Your task to perform on an android device: turn off wifi Image 0: 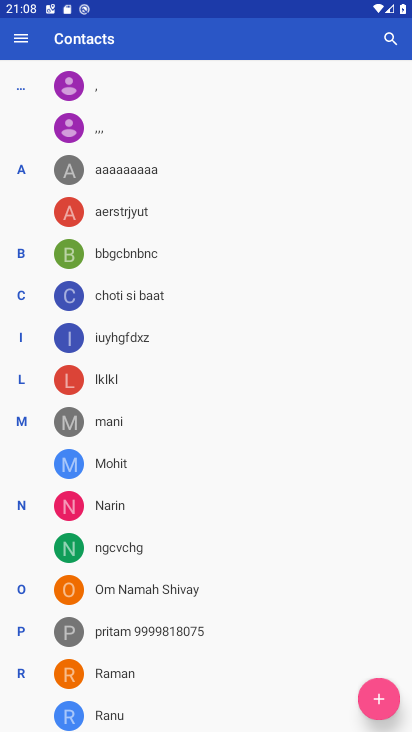
Step 0: press home button
Your task to perform on an android device: turn off wifi Image 1: 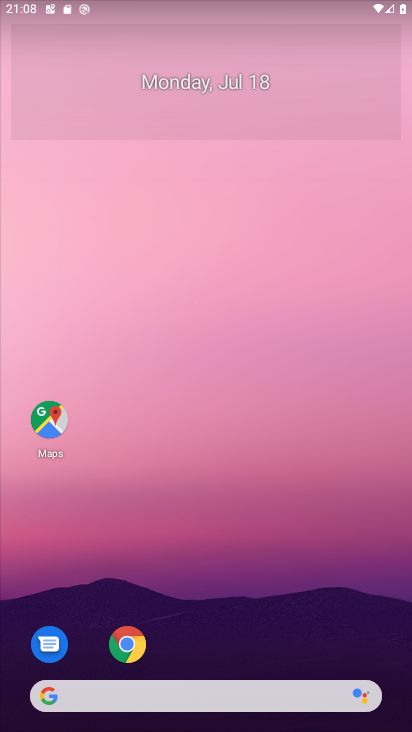
Step 1: drag from (254, 622) to (193, 33)
Your task to perform on an android device: turn off wifi Image 2: 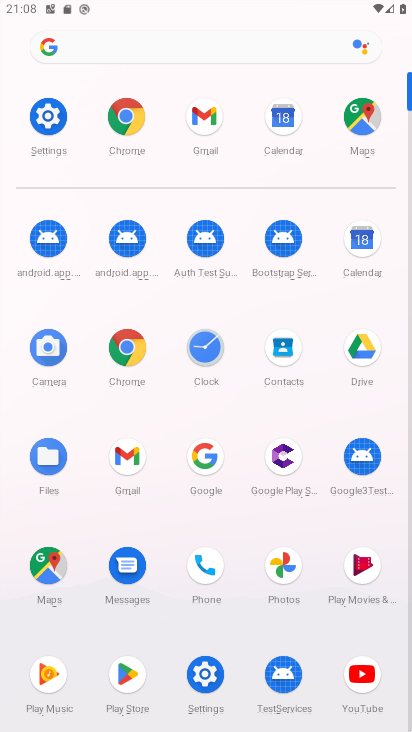
Step 2: click (55, 142)
Your task to perform on an android device: turn off wifi Image 3: 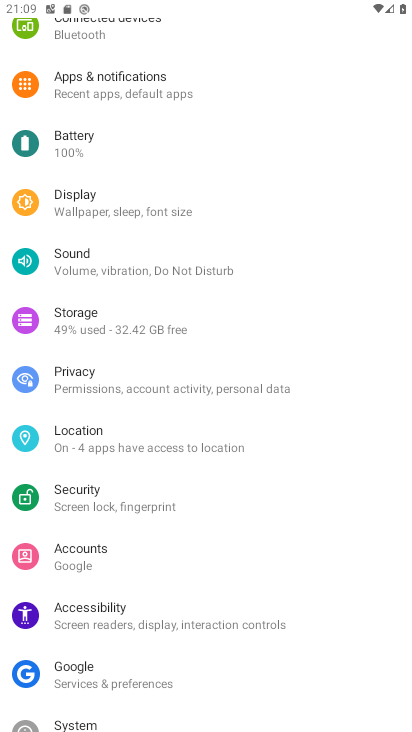
Step 3: drag from (268, 128) to (215, 562)
Your task to perform on an android device: turn off wifi Image 4: 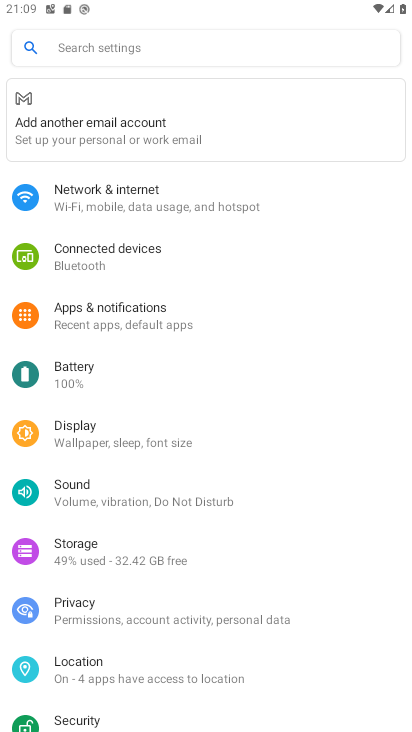
Step 4: click (149, 187)
Your task to perform on an android device: turn off wifi Image 5: 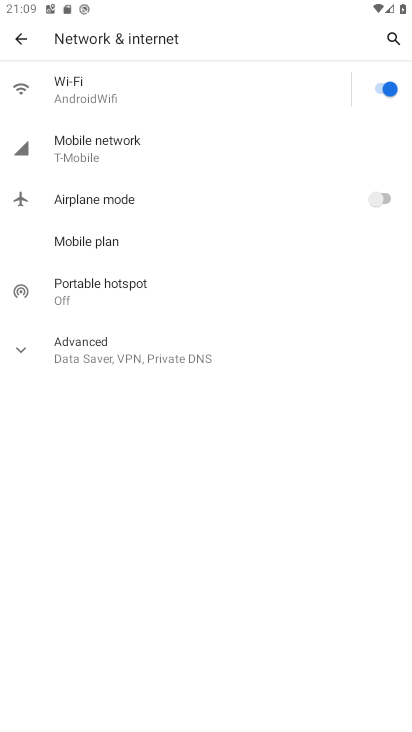
Step 5: task complete